Your task to perform on an android device: stop showing notifications on the lock screen Image 0: 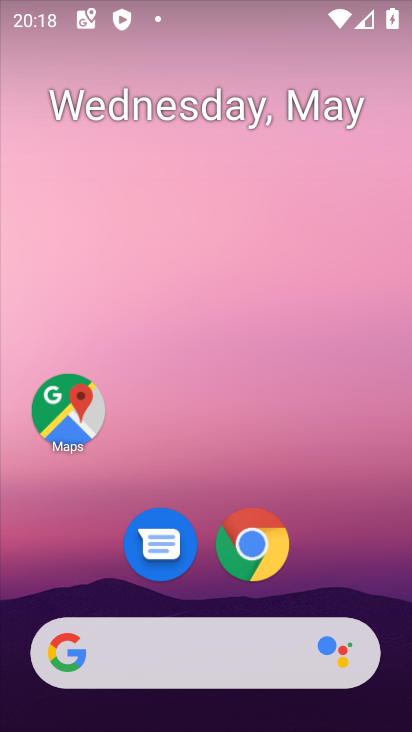
Step 0: click (270, 533)
Your task to perform on an android device: stop showing notifications on the lock screen Image 1: 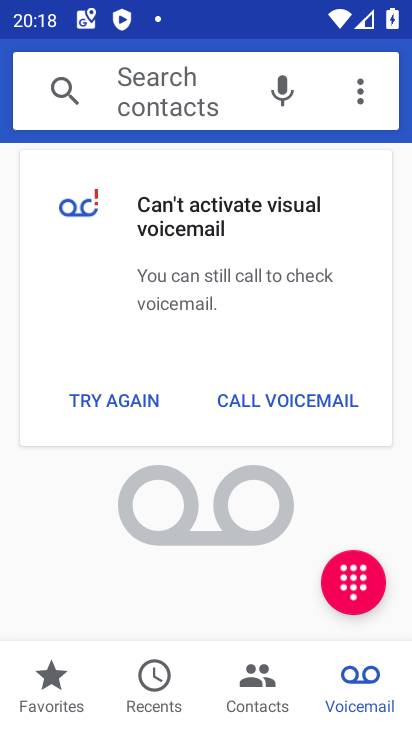
Step 1: press home button
Your task to perform on an android device: stop showing notifications on the lock screen Image 2: 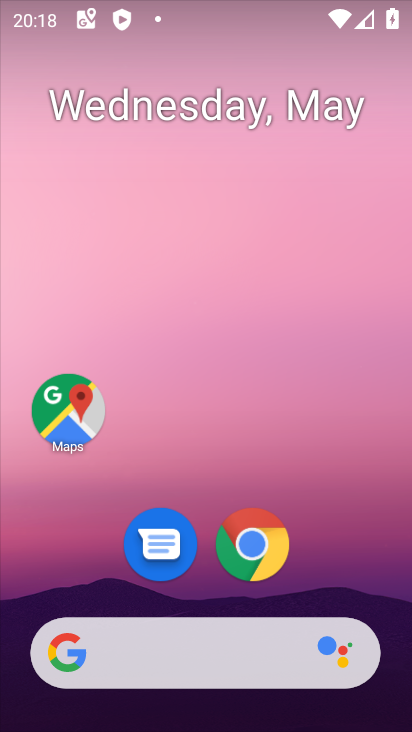
Step 2: drag from (206, 604) to (281, 46)
Your task to perform on an android device: stop showing notifications on the lock screen Image 3: 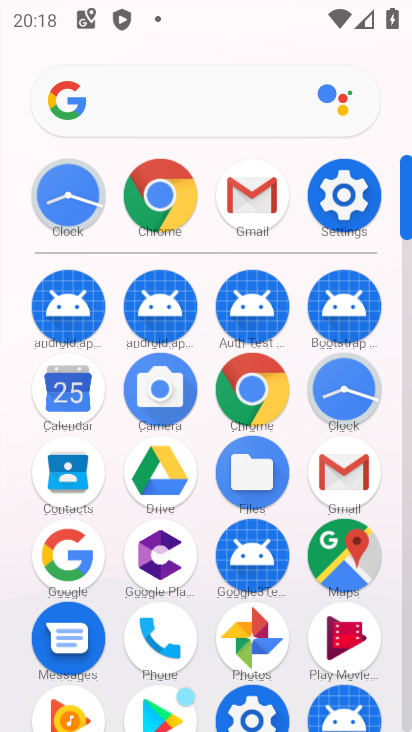
Step 3: click (328, 195)
Your task to perform on an android device: stop showing notifications on the lock screen Image 4: 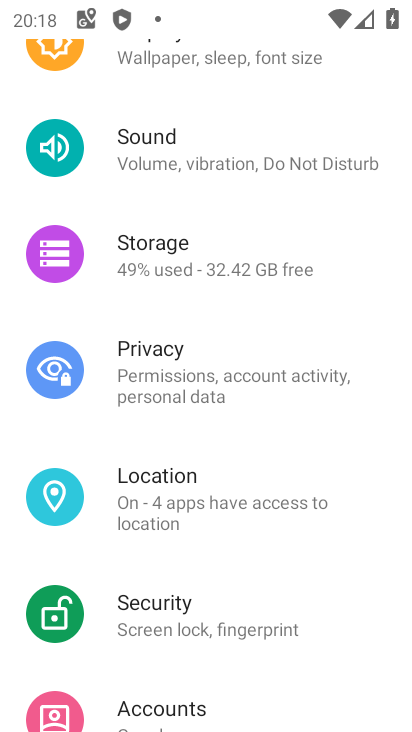
Step 4: drag from (179, 109) to (181, 632)
Your task to perform on an android device: stop showing notifications on the lock screen Image 5: 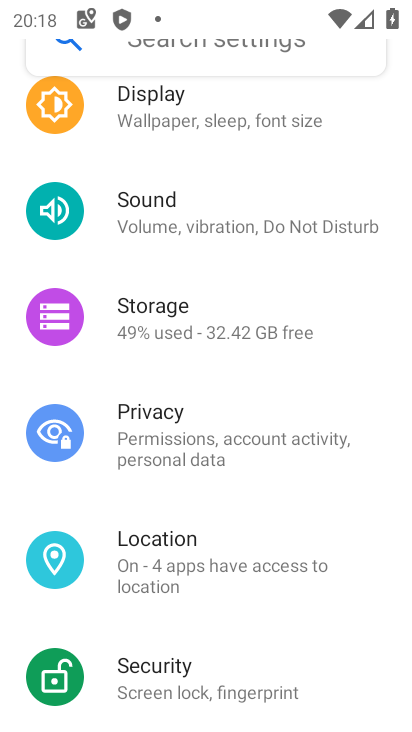
Step 5: drag from (135, 149) to (111, 524)
Your task to perform on an android device: stop showing notifications on the lock screen Image 6: 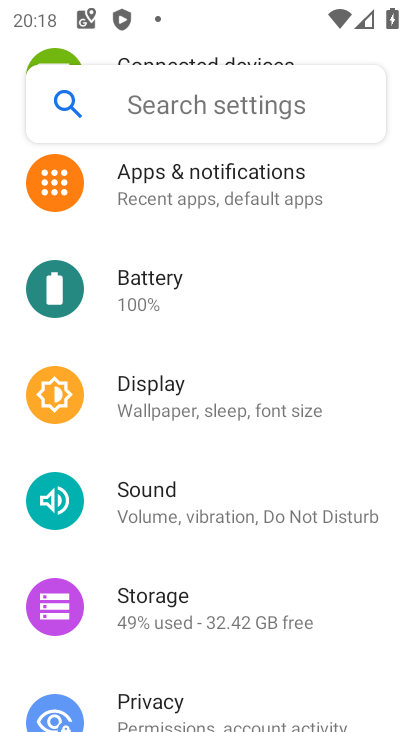
Step 6: click (163, 196)
Your task to perform on an android device: stop showing notifications on the lock screen Image 7: 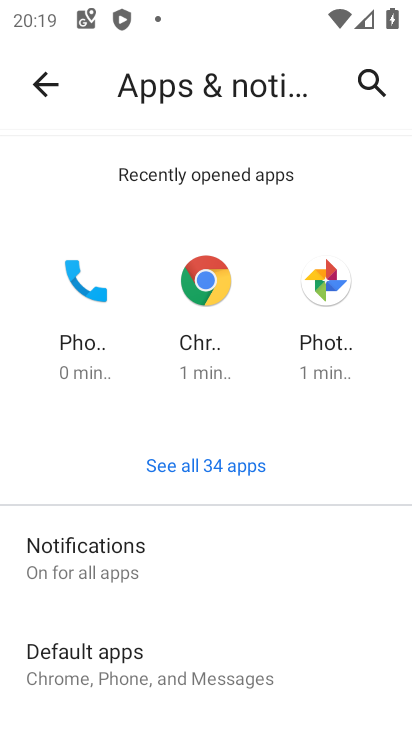
Step 7: click (130, 532)
Your task to perform on an android device: stop showing notifications on the lock screen Image 8: 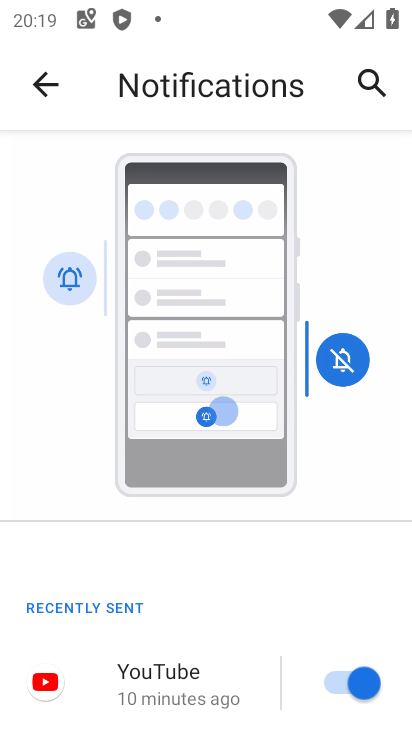
Step 8: drag from (148, 690) to (214, 23)
Your task to perform on an android device: stop showing notifications on the lock screen Image 9: 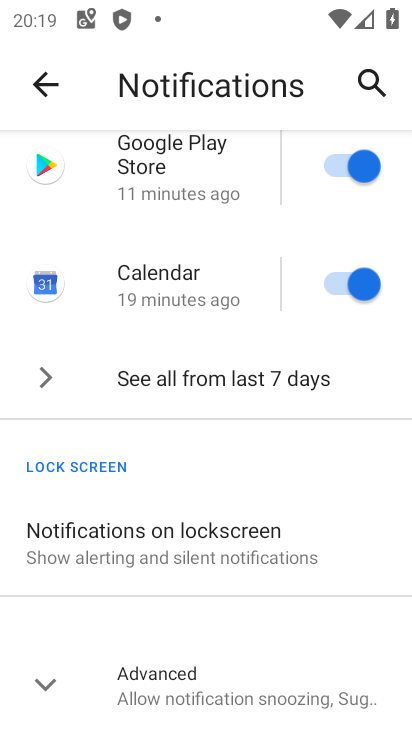
Step 9: click (171, 503)
Your task to perform on an android device: stop showing notifications on the lock screen Image 10: 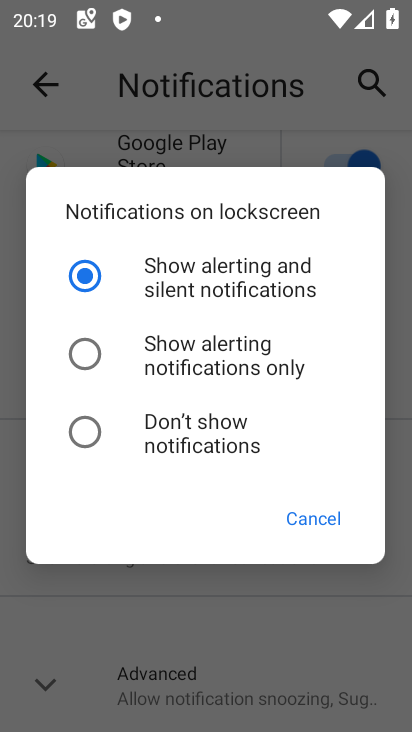
Step 10: click (140, 440)
Your task to perform on an android device: stop showing notifications on the lock screen Image 11: 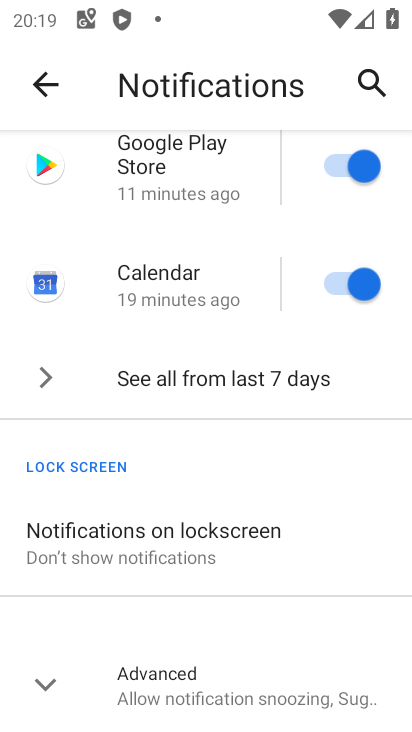
Step 11: task complete